Your task to perform on an android device: Add panasonic triple a to the cart on newegg Image 0: 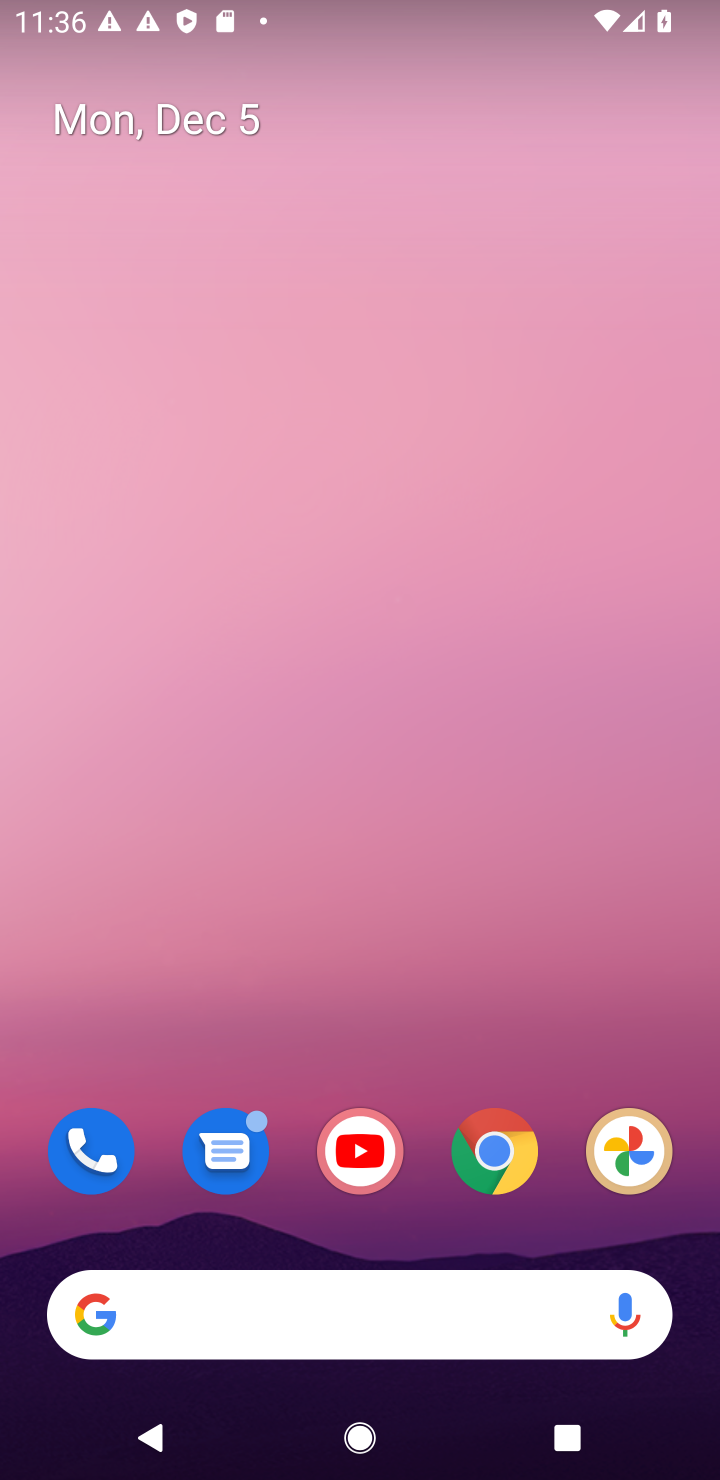
Step 0: click (497, 1166)
Your task to perform on an android device: Add panasonic triple a to the cart on newegg Image 1: 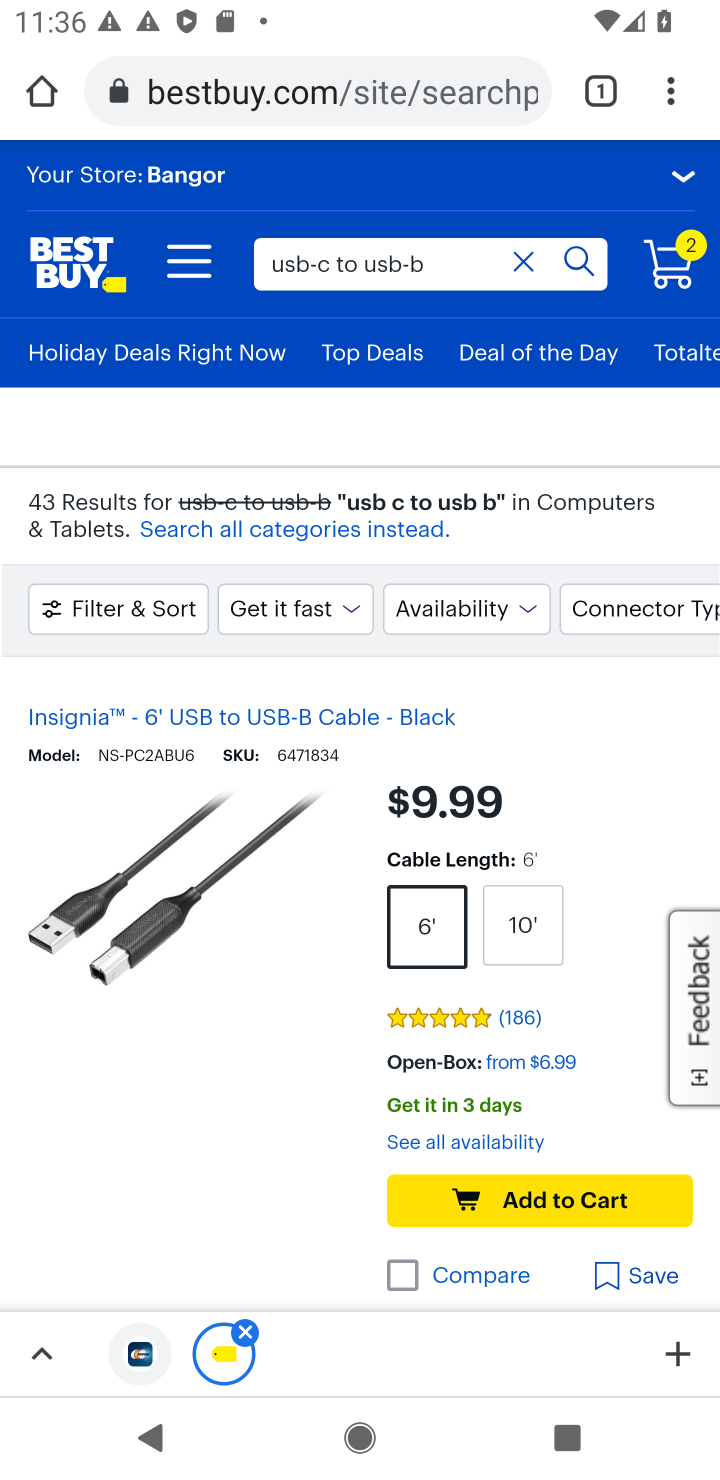
Step 1: click (274, 97)
Your task to perform on an android device: Add panasonic triple a to the cart on newegg Image 2: 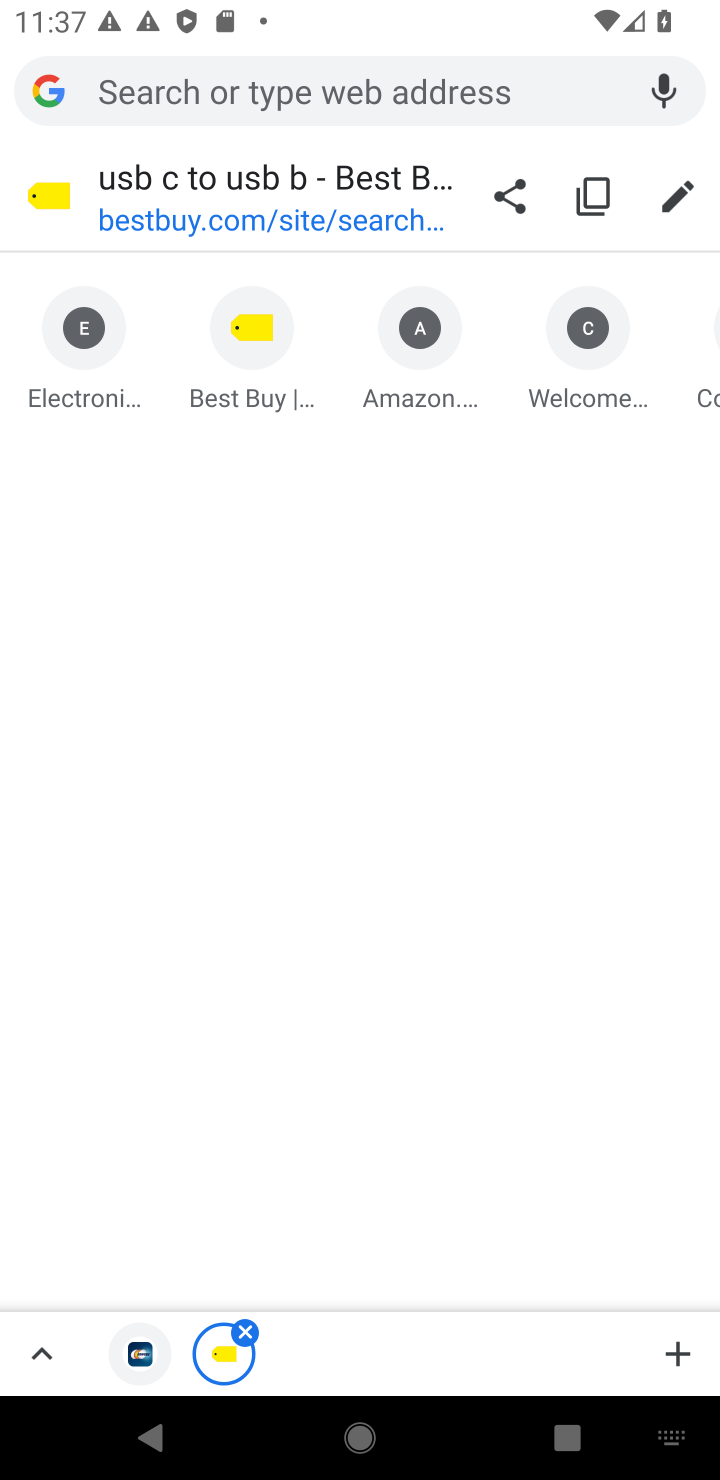
Step 2: type "newegg.com"
Your task to perform on an android device: Add panasonic triple a to the cart on newegg Image 3: 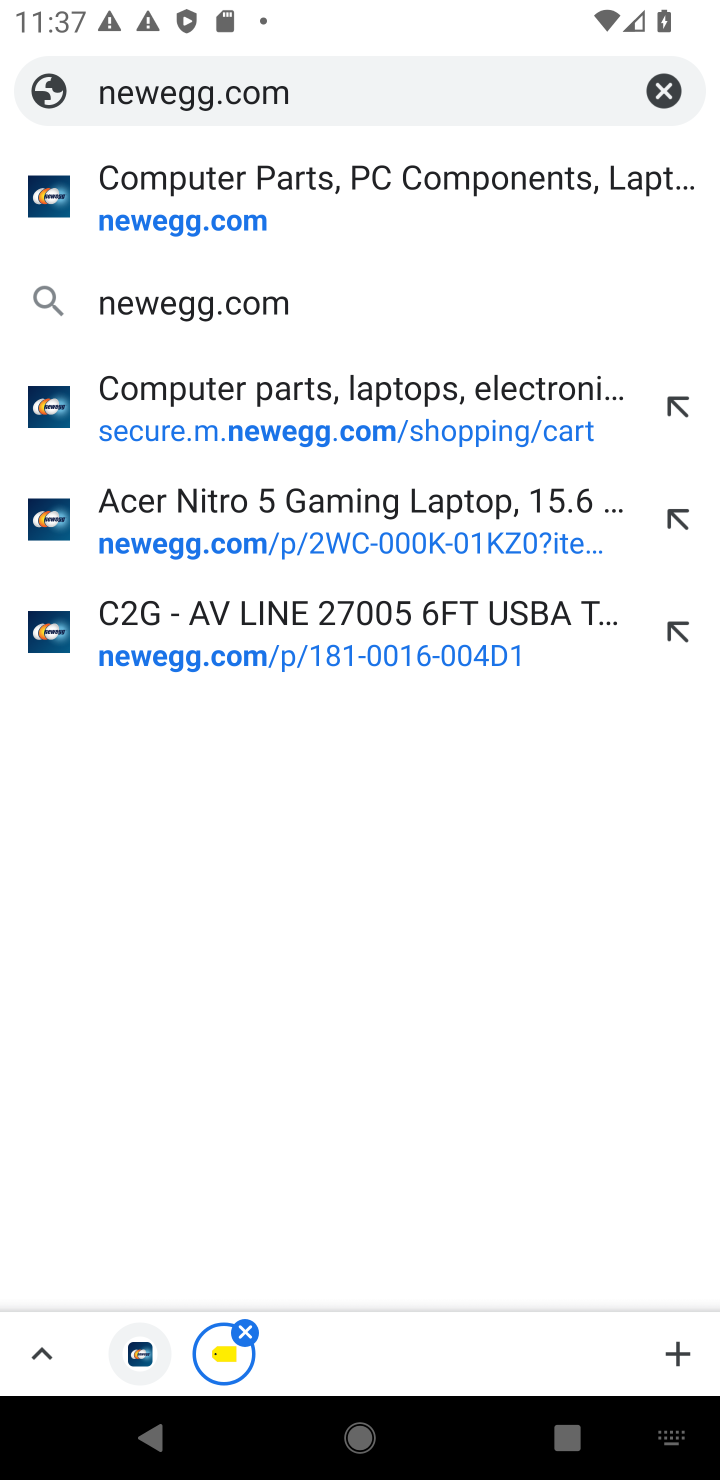
Step 3: click (185, 216)
Your task to perform on an android device: Add panasonic triple a to the cart on newegg Image 4: 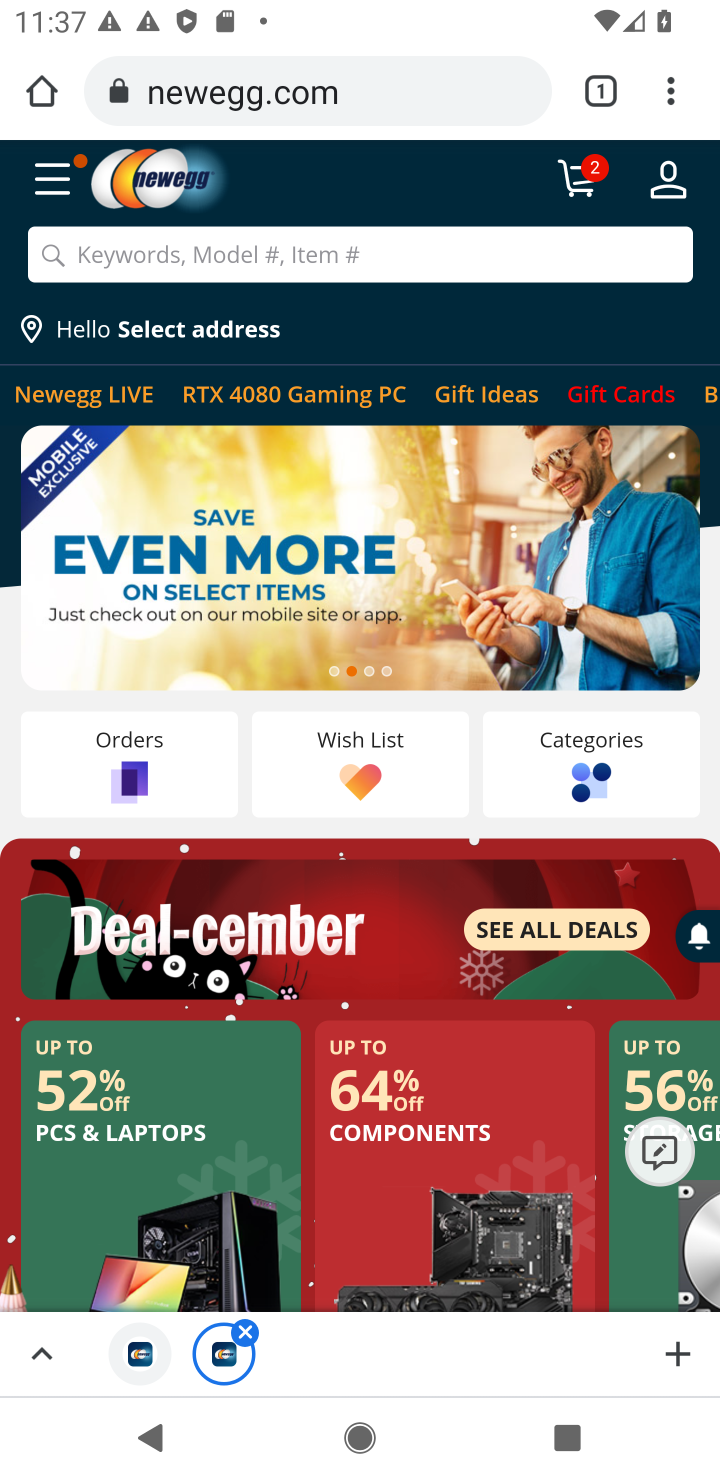
Step 4: click (119, 254)
Your task to perform on an android device: Add panasonic triple a to the cart on newegg Image 5: 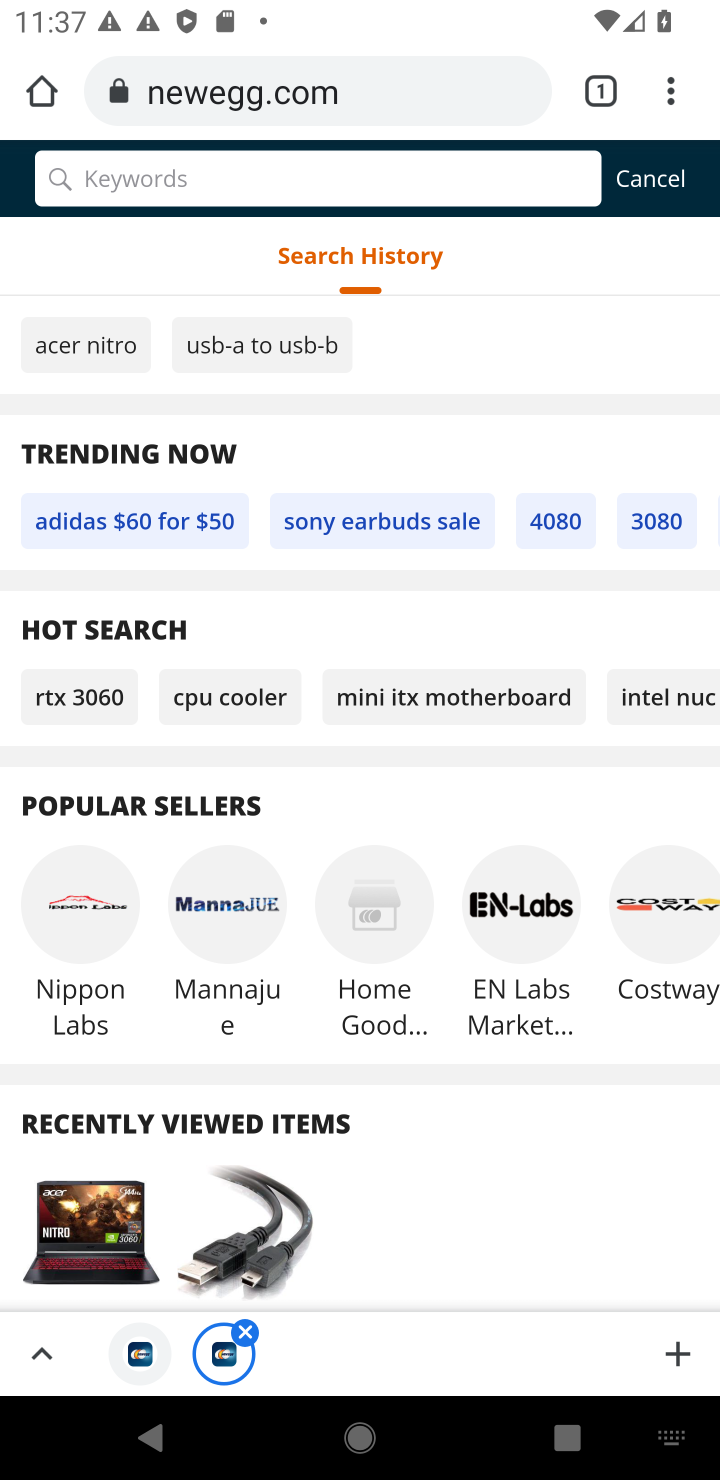
Step 5: type "panasonic triple a "
Your task to perform on an android device: Add panasonic triple a to the cart on newegg Image 6: 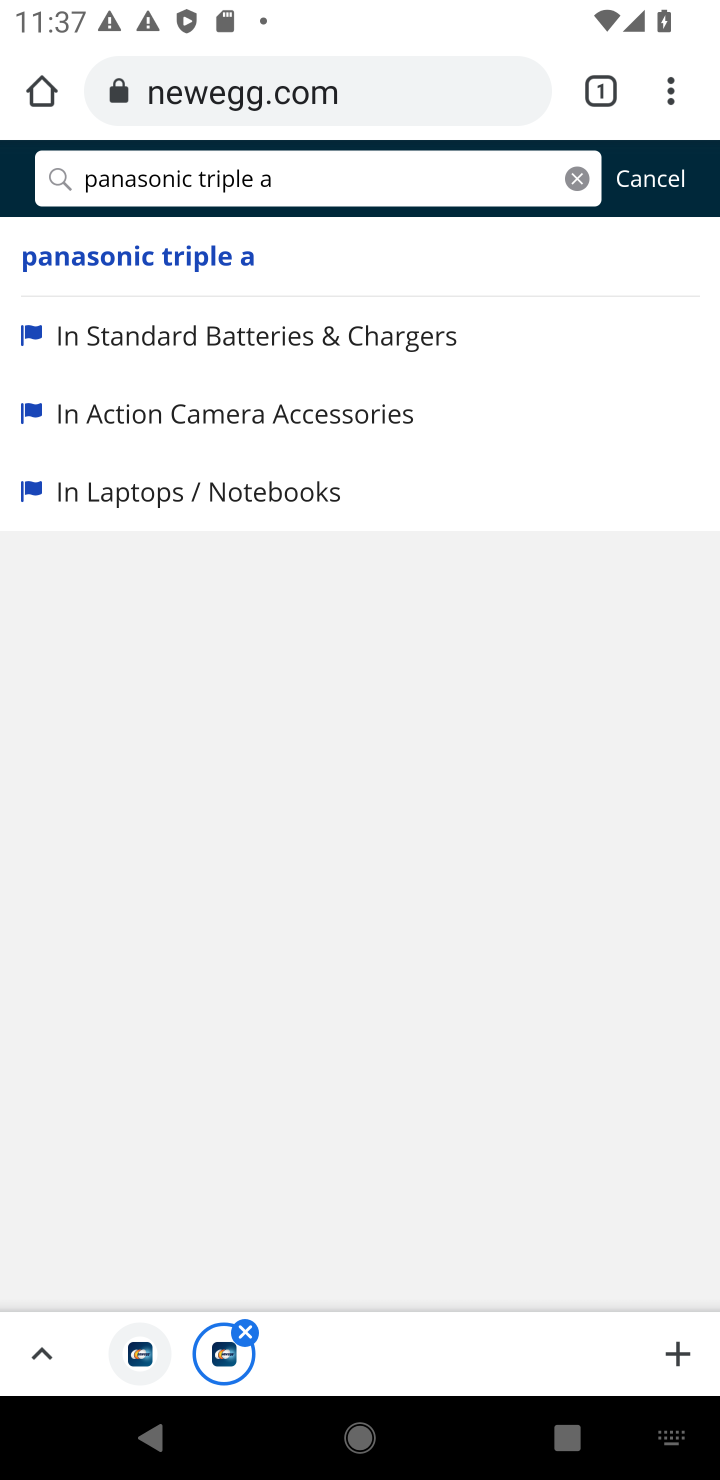
Step 6: click (194, 253)
Your task to perform on an android device: Add panasonic triple a to the cart on newegg Image 7: 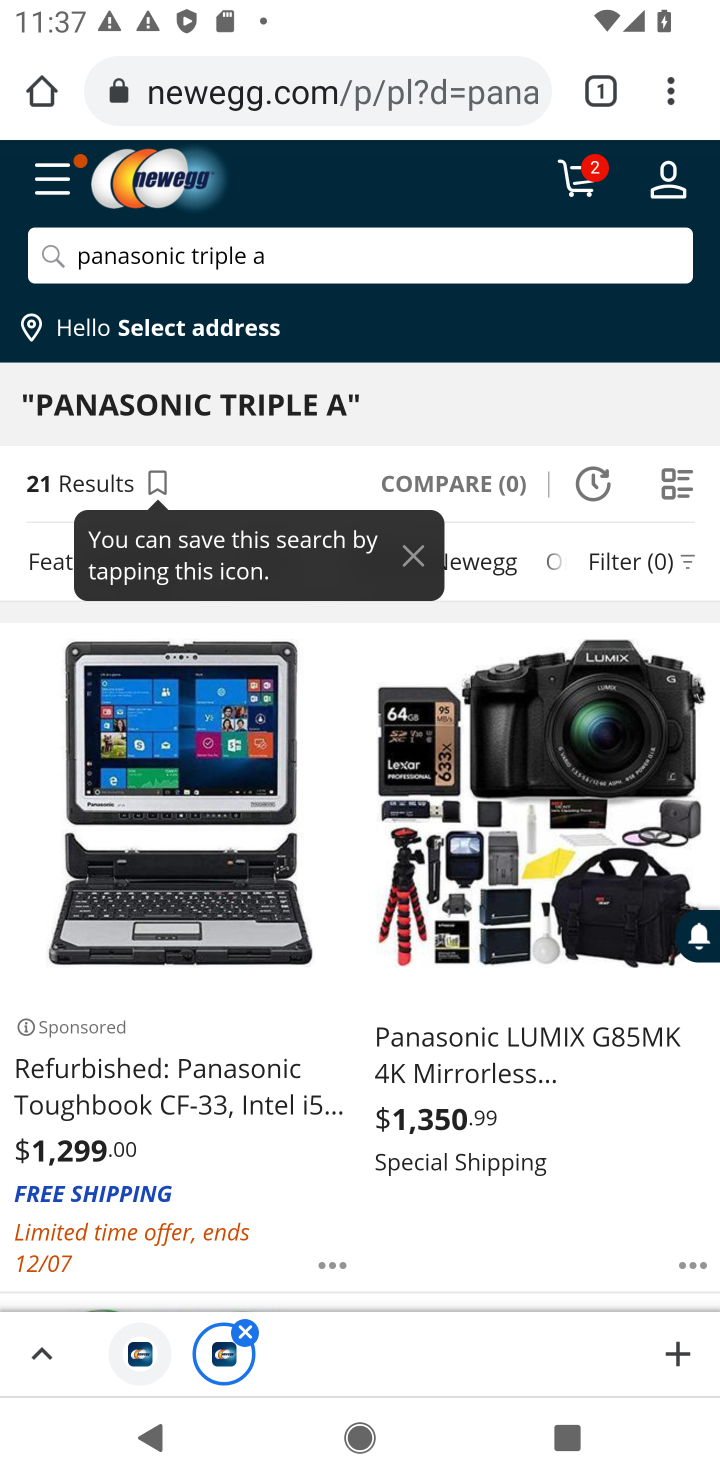
Step 7: drag from (220, 1038) to (226, 498)
Your task to perform on an android device: Add panasonic triple a to the cart on newegg Image 8: 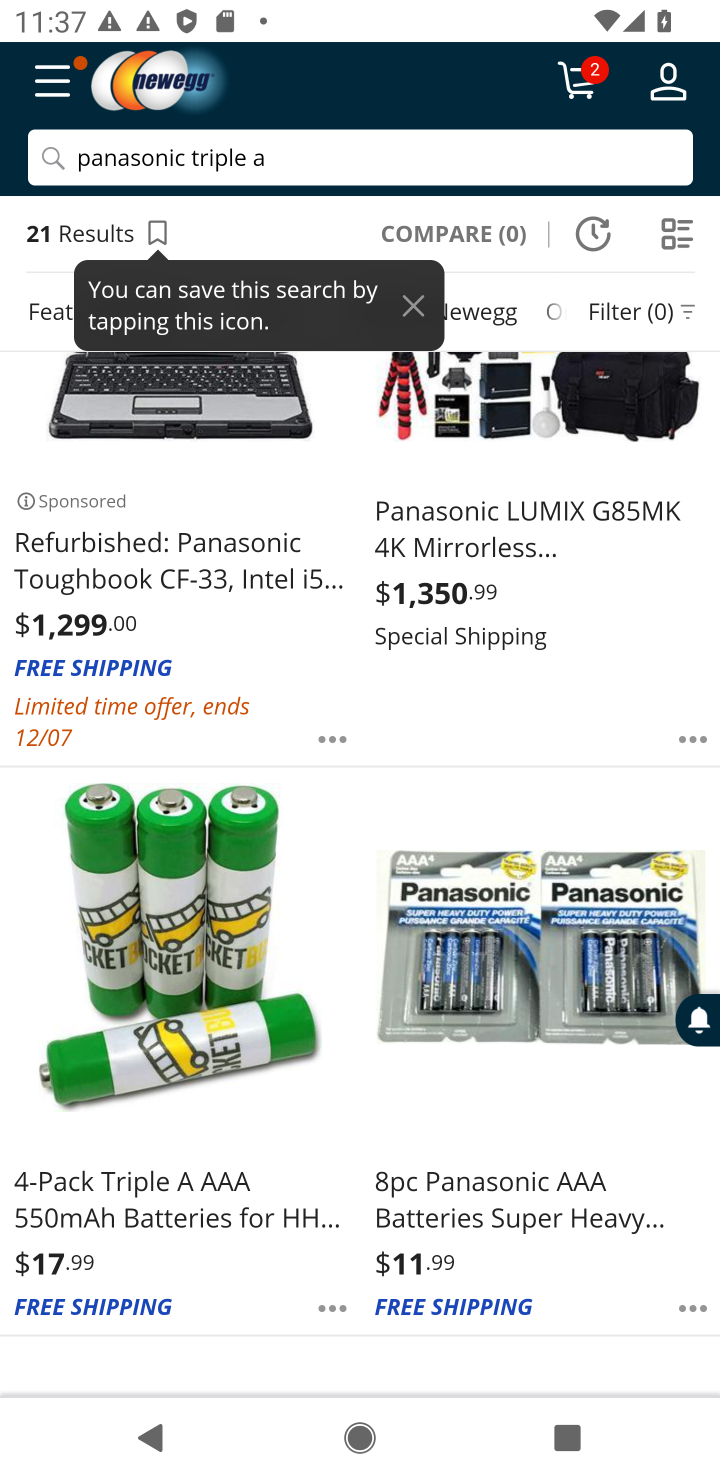
Step 8: drag from (265, 959) to (271, 480)
Your task to perform on an android device: Add panasonic triple a to the cart on newegg Image 9: 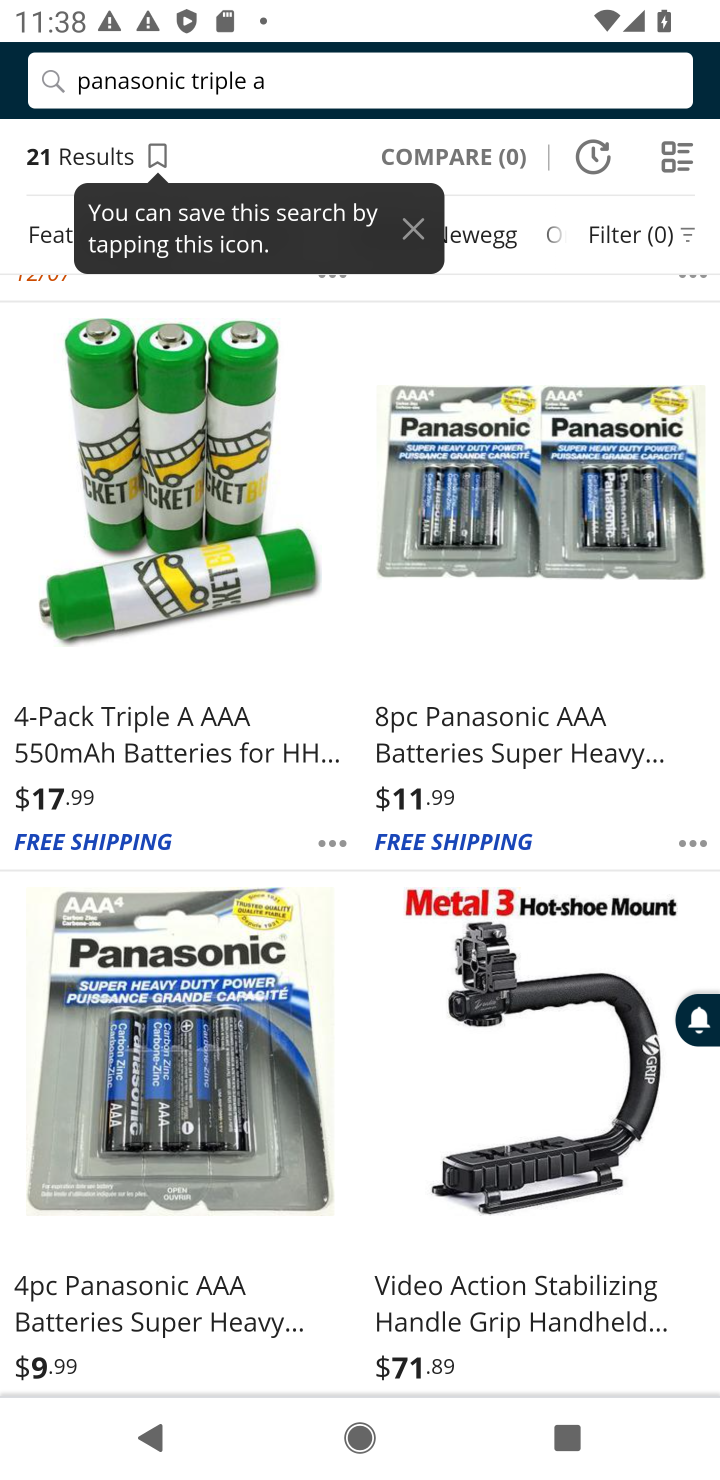
Step 9: click (582, 532)
Your task to perform on an android device: Add panasonic triple a to the cart on newegg Image 10: 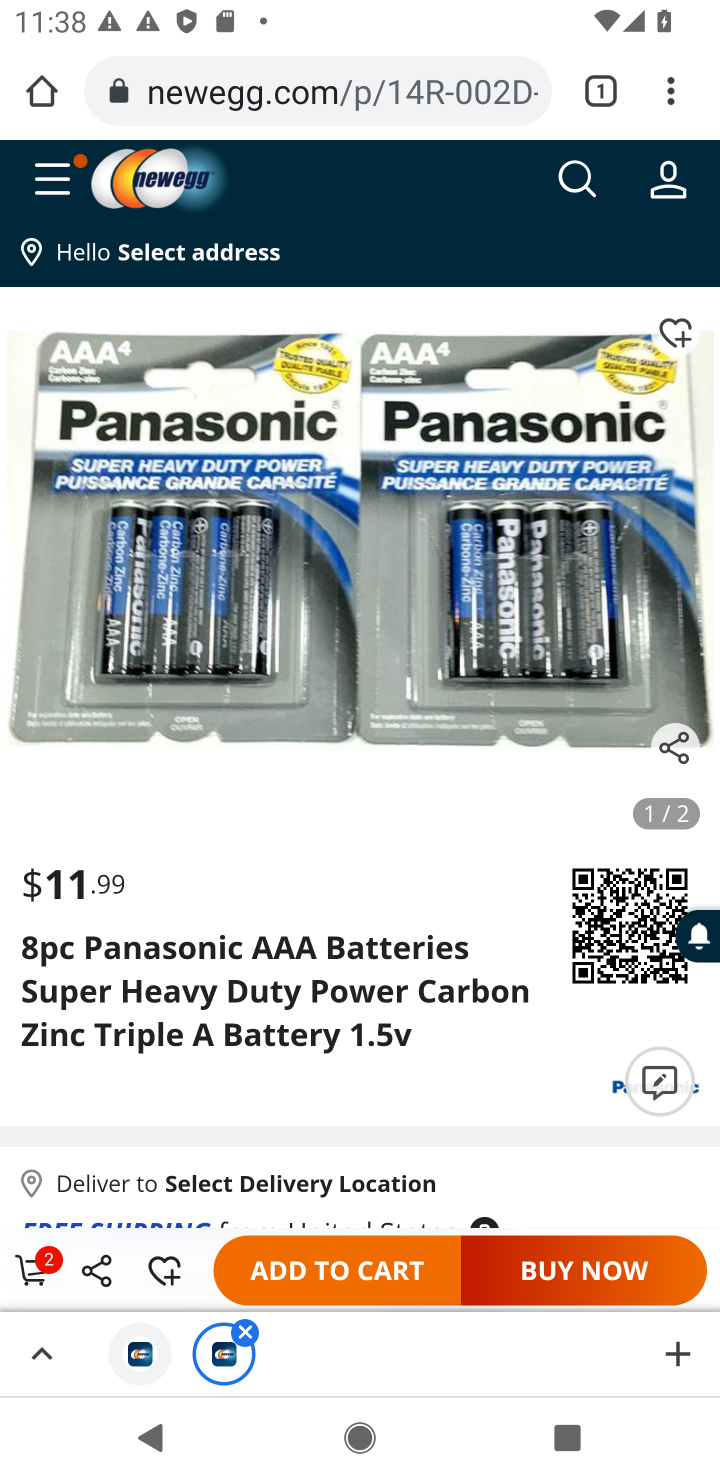
Step 10: click (296, 1268)
Your task to perform on an android device: Add panasonic triple a to the cart on newegg Image 11: 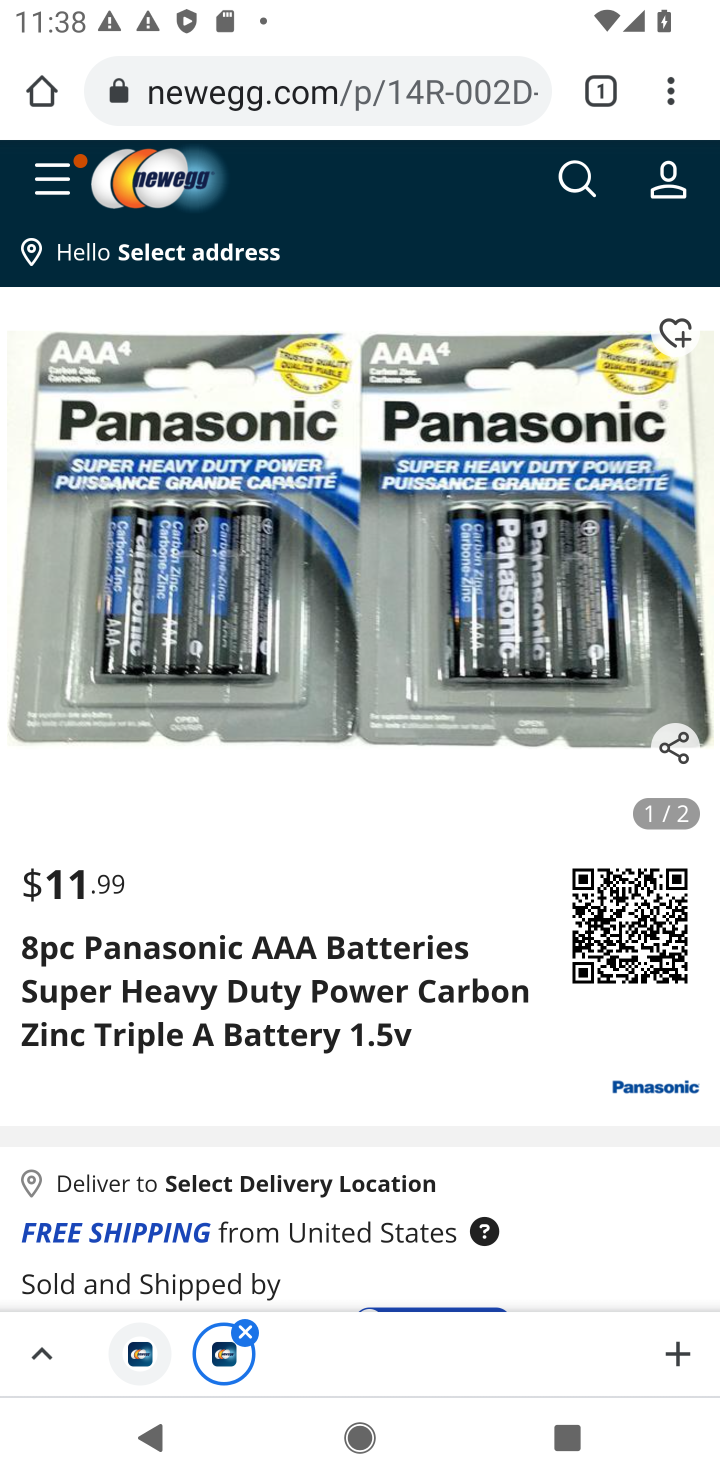
Step 11: task complete